Your task to perform on an android device: Go to battery settings Image 0: 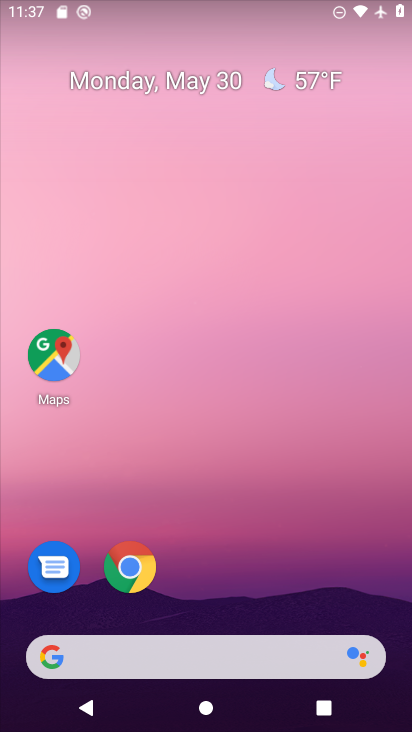
Step 0: drag from (197, 595) to (245, 128)
Your task to perform on an android device: Go to battery settings Image 1: 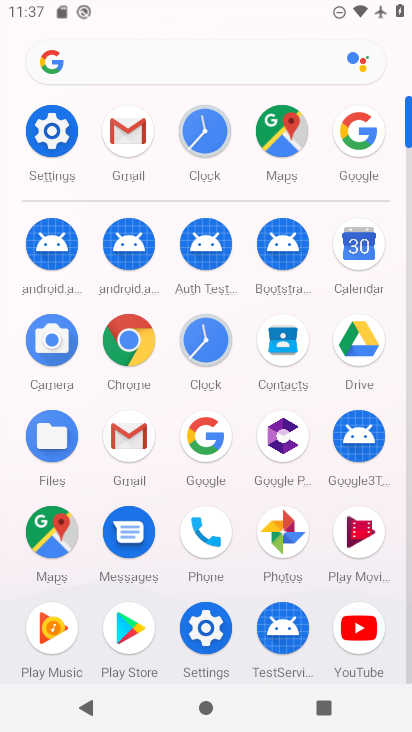
Step 1: click (47, 109)
Your task to perform on an android device: Go to battery settings Image 2: 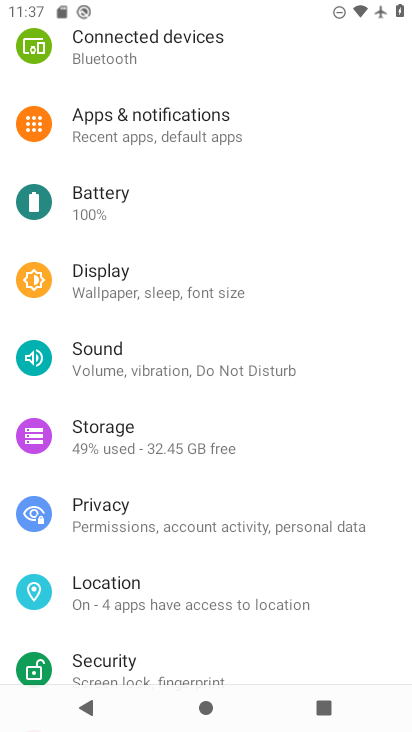
Step 2: click (181, 199)
Your task to perform on an android device: Go to battery settings Image 3: 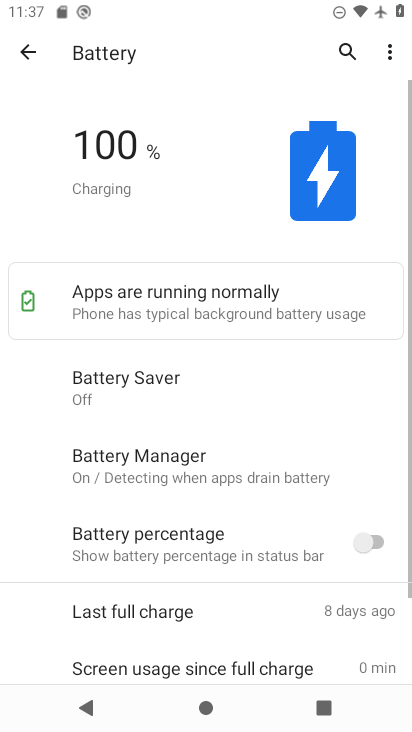
Step 3: task complete